Your task to perform on an android device: turn on notifications settings in the gmail app Image 0: 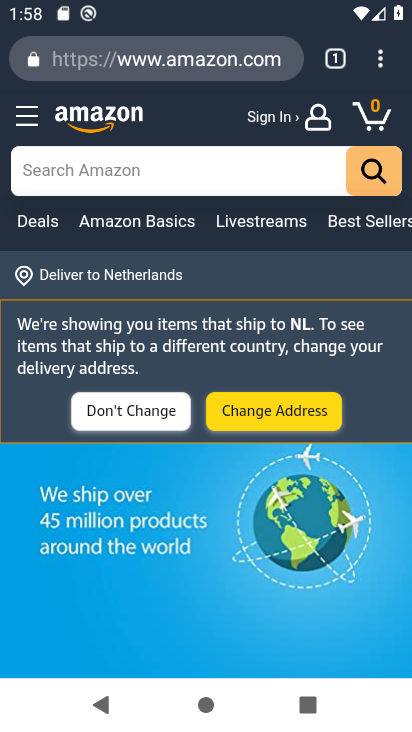
Step 0: press home button
Your task to perform on an android device: turn on notifications settings in the gmail app Image 1: 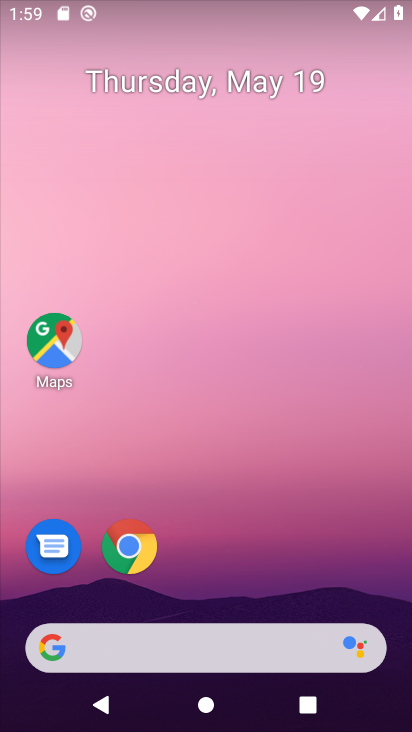
Step 1: drag from (233, 584) to (283, 29)
Your task to perform on an android device: turn on notifications settings in the gmail app Image 2: 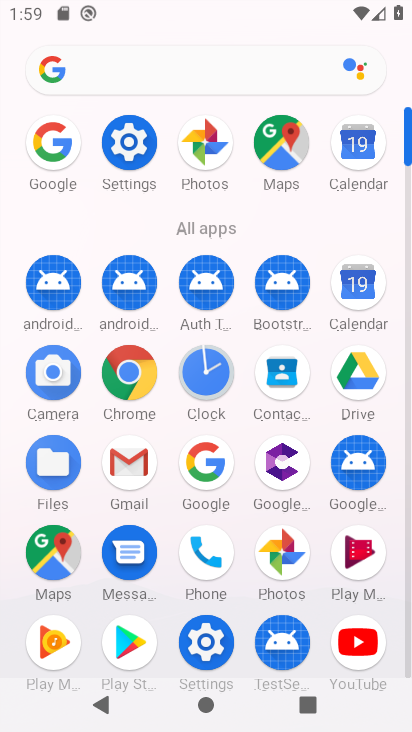
Step 2: click (140, 459)
Your task to perform on an android device: turn on notifications settings in the gmail app Image 3: 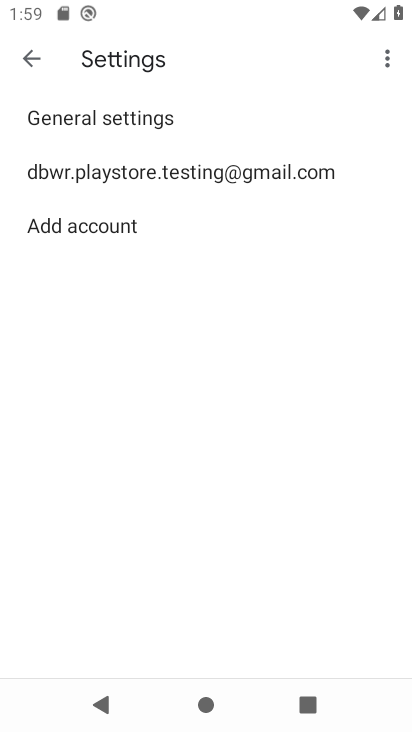
Step 3: click (180, 108)
Your task to perform on an android device: turn on notifications settings in the gmail app Image 4: 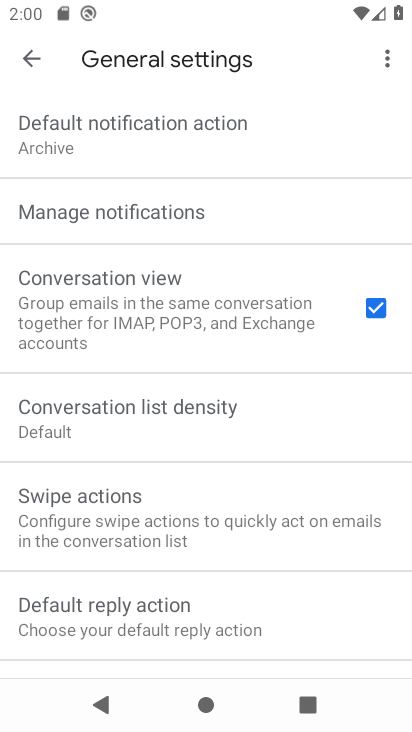
Step 4: click (202, 221)
Your task to perform on an android device: turn on notifications settings in the gmail app Image 5: 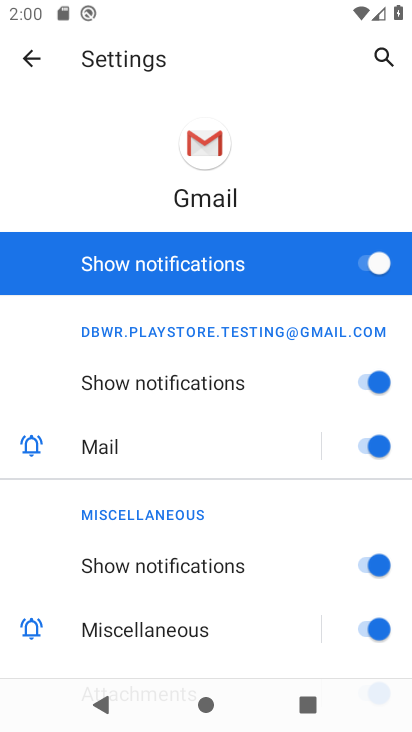
Step 5: task complete